Your task to perform on an android device: turn notification dots off Image 0: 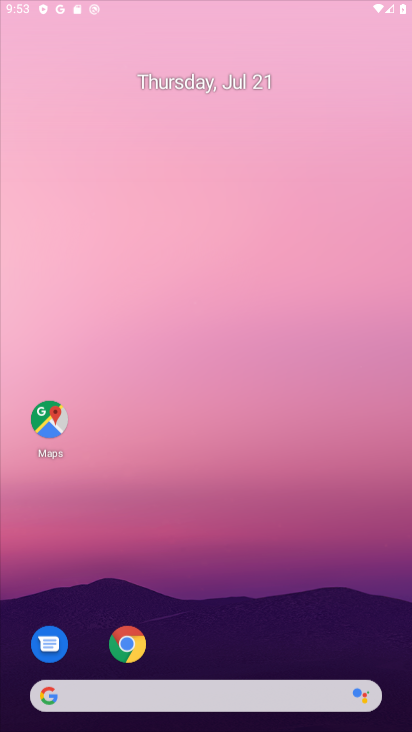
Step 0: press home button
Your task to perform on an android device: turn notification dots off Image 1: 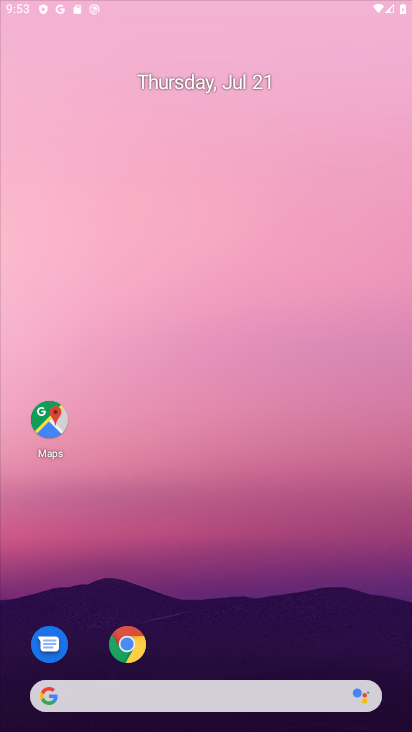
Step 1: drag from (204, 660) to (254, 36)
Your task to perform on an android device: turn notification dots off Image 2: 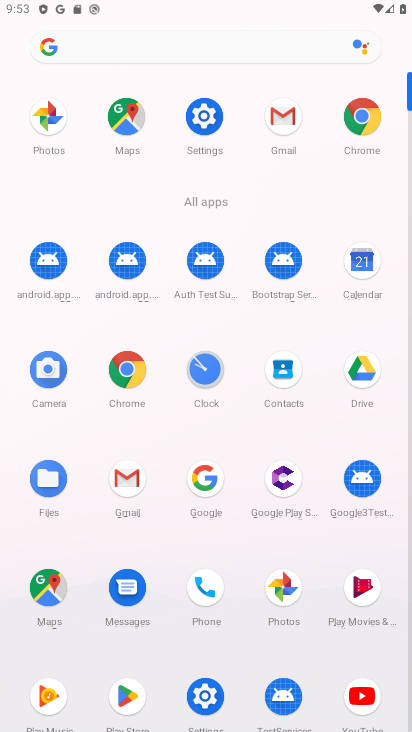
Step 2: click (202, 107)
Your task to perform on an android device: turn notification dots off Image 3: 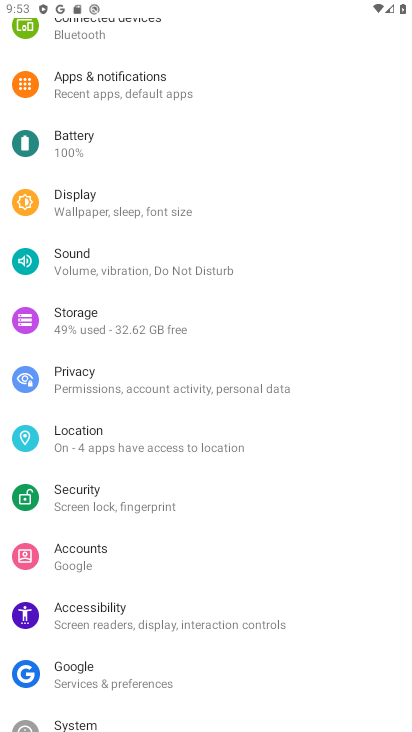
Step 3: click (151, 81)
Your task to perform on an android device: turn notification dots off Image 4: 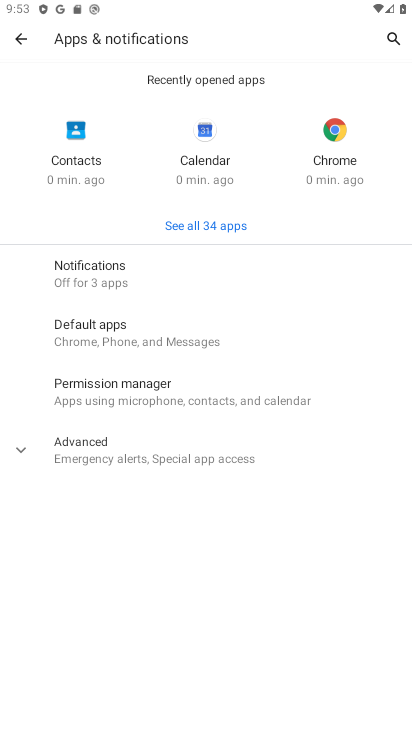
Step 4: click (25, 446)
Your task to perform on an android device: turn notification dots off Image 5: 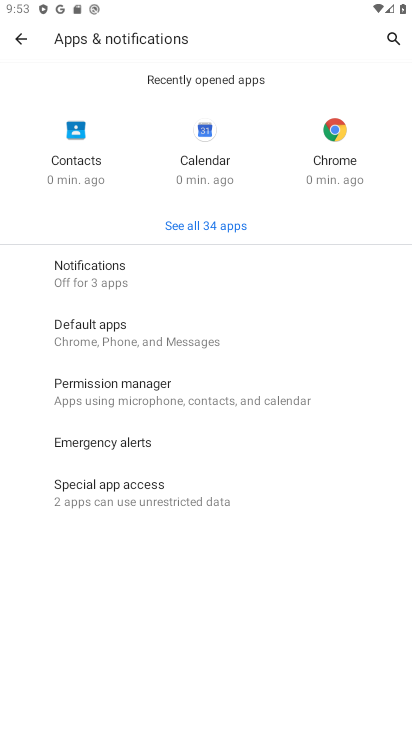
Step 5: click (140, 266)
Your task to perform on an android device: turn notification dots off Image 6: 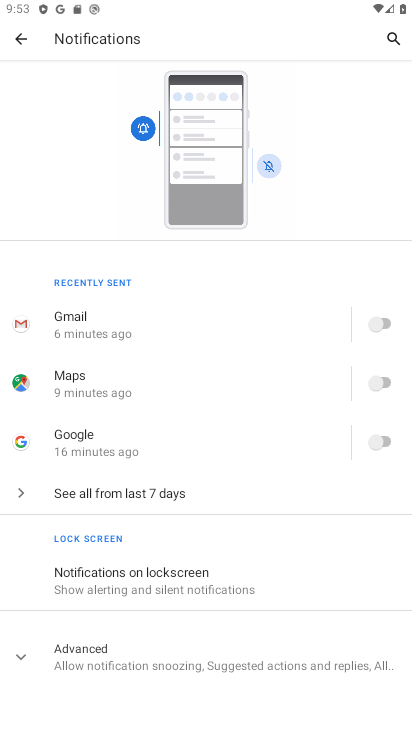
Step 6: click (23, 653)
Your task to perform on an android device: turn notification dots off Image 7: 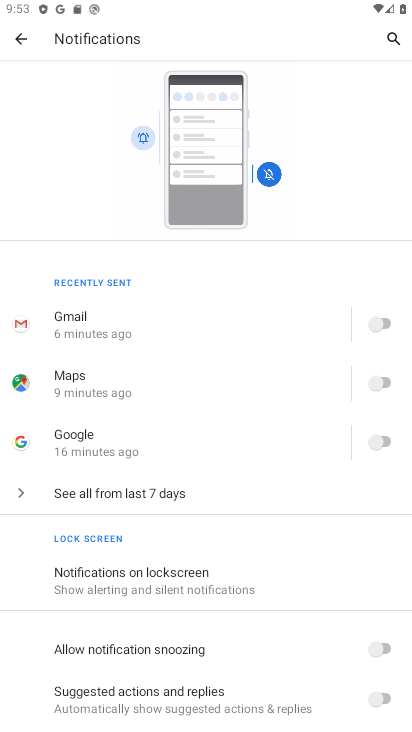
Step 7: task complete